Your task to perform on an android device: turn notification dots on Image 0: 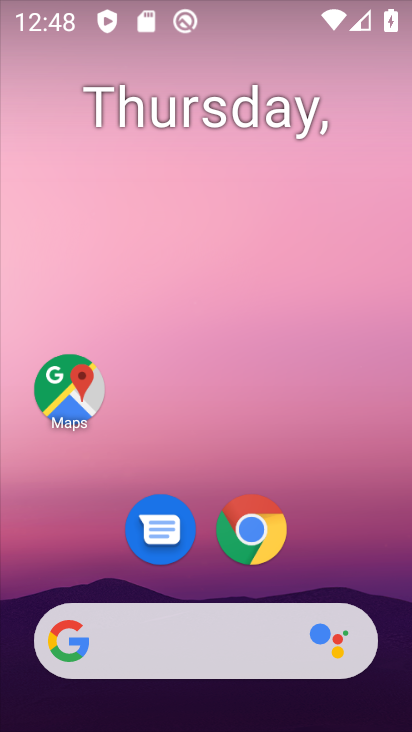
Step 0: drag from (360, 559) to (322, 197)
Your task to perform on an android device: turn notification dots on Image 1: 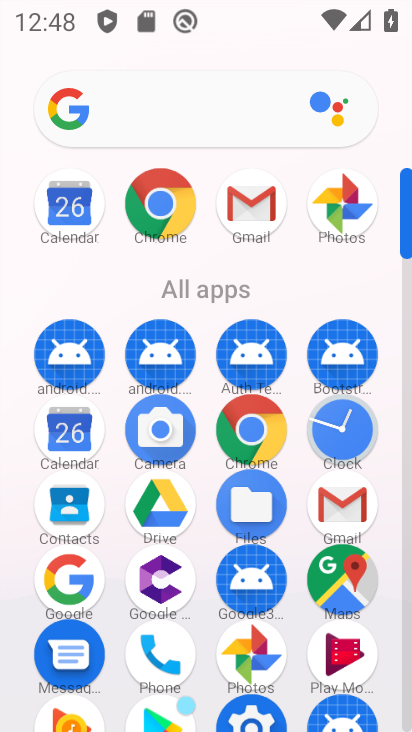
Step 1: drag from (187, 490) to (196, 280)
Your task to perform on an android device: turn notification dots on Image 2: 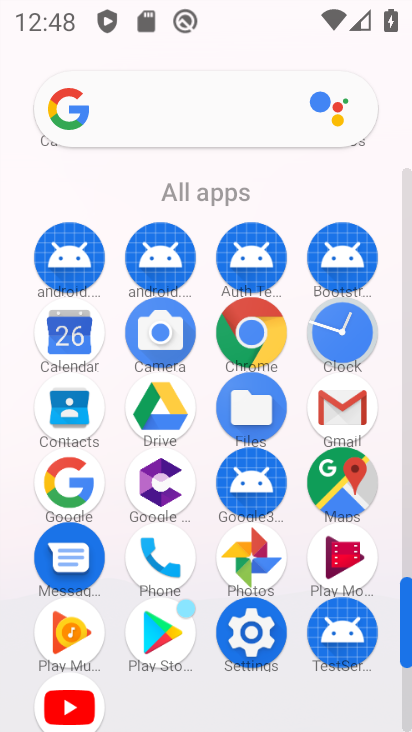
Step 2: click (251, 634)
Your task to perform on an android device: turn notification dots on Image 3: 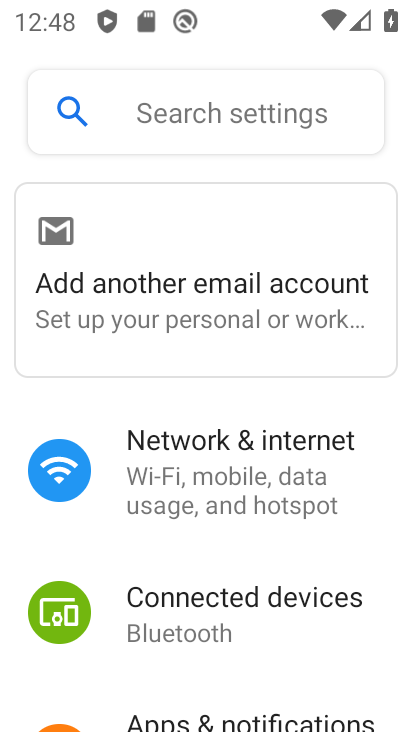
Step 3: drag from (280, 649) to (288, 303)
Your task to perform on an android device: turn notification dots on Image 4: 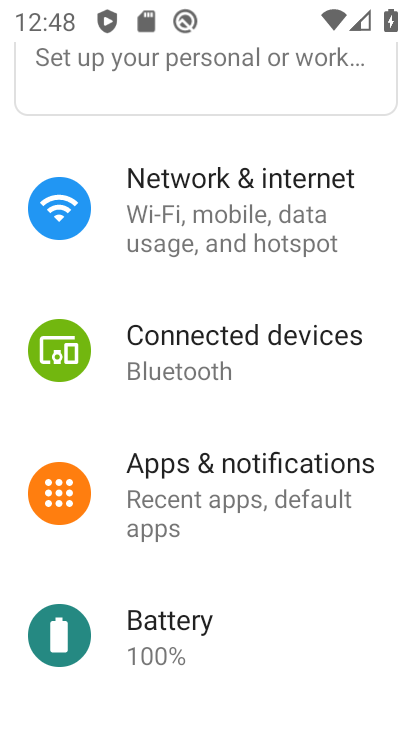
Step 4: click (234, 475)
Your task to perform on an android device: turn notification dots on Image 5: 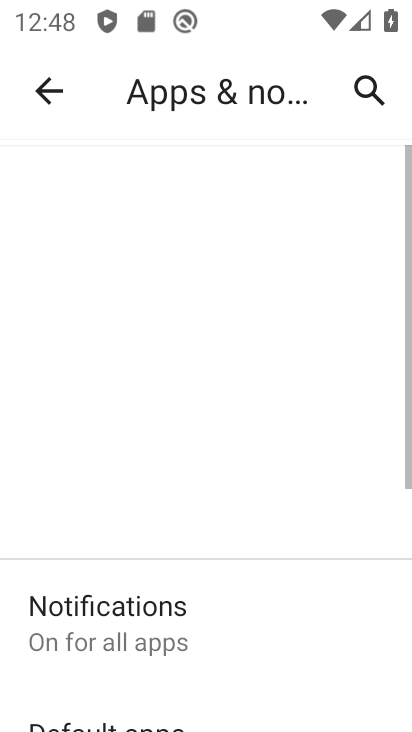
Step 5: click (140, 629)
Your task to perform on an android device: turn notification dots on Image 6: 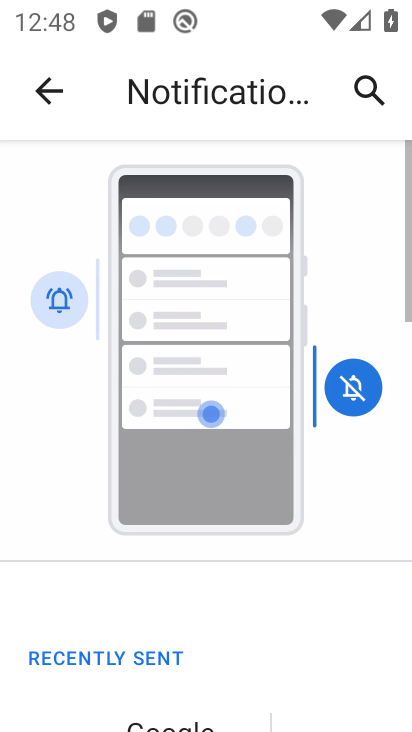
Step 6: drag from (269, 686) to (288, 276)
Your task to perform on an android device: turn notification dots on Image 7: 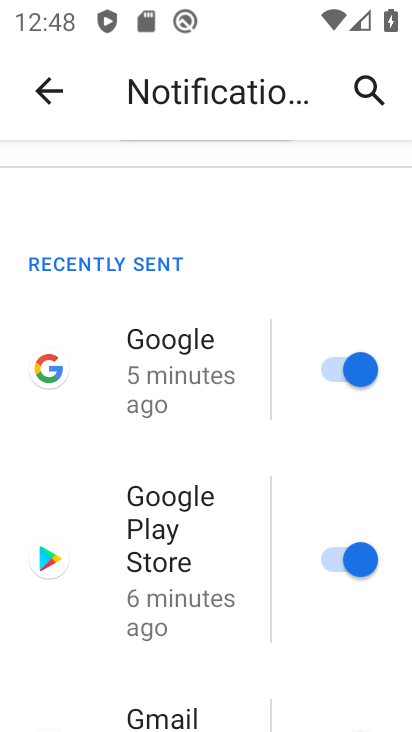
Step 7: drag from (256, 673) to (298, 334)
Your task to perform on an android device: turn notification dots on Image 8: 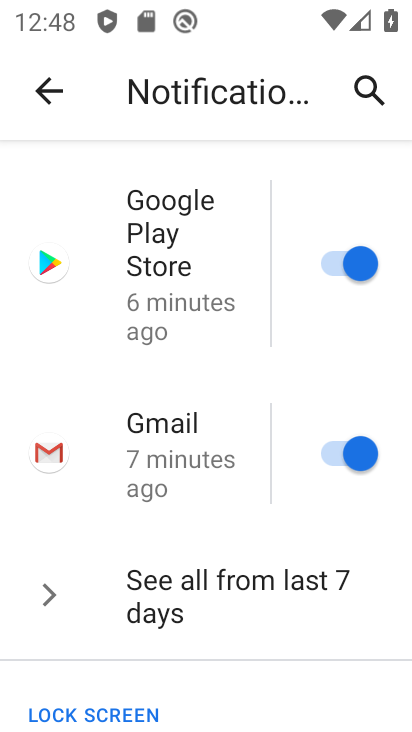
Step 8: drag from (234, 669) to (271, 299)
Your task to perform on an android device: turn notification dots on Image 9: 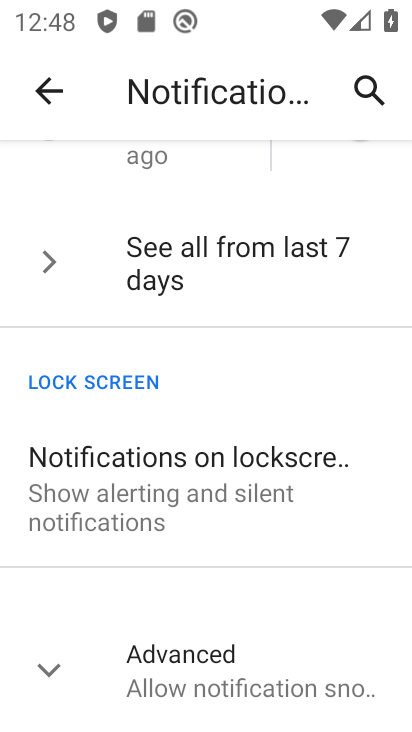
Step 9: click (217, 664)
Your task to perform on an android device: turn notification dots on Image 10: 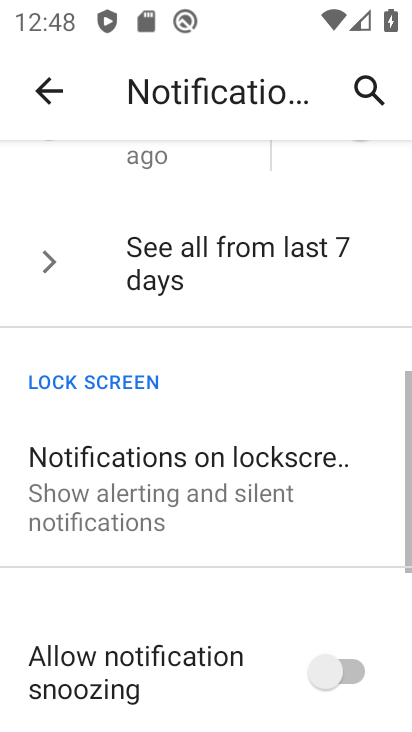
Step 10: task complete